Your task to perform on an android device: change the clock display to show seconds Image 0: 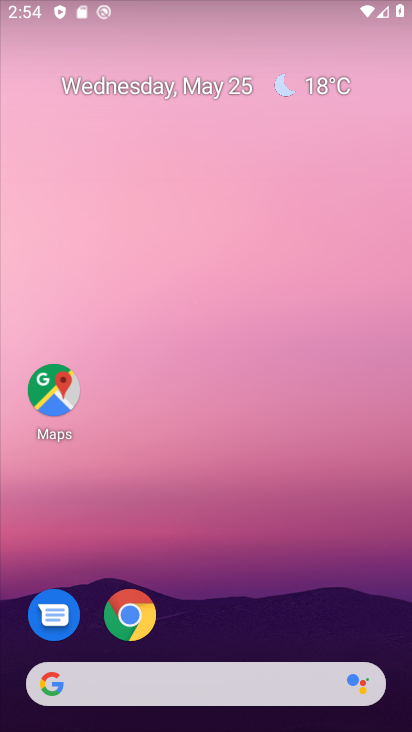
Step 0: click (157, 59)
Your task to perform on an android device: change the clock display to show seconds Image 1: 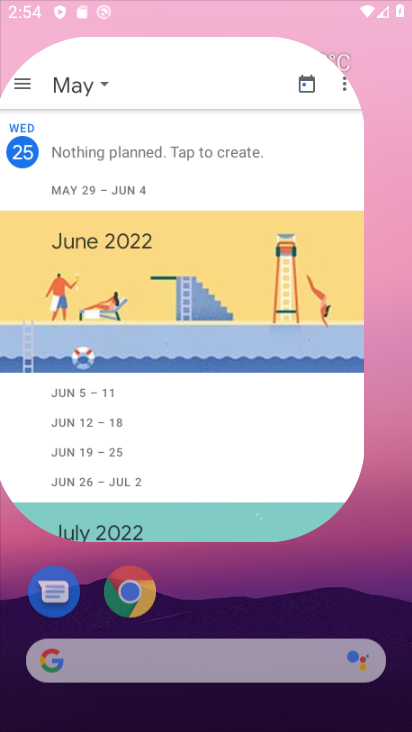
Step 1: drag from (227, 492) to (173, 117)
Your task to perform on an android device: change the clock display to show seconds Image 2: 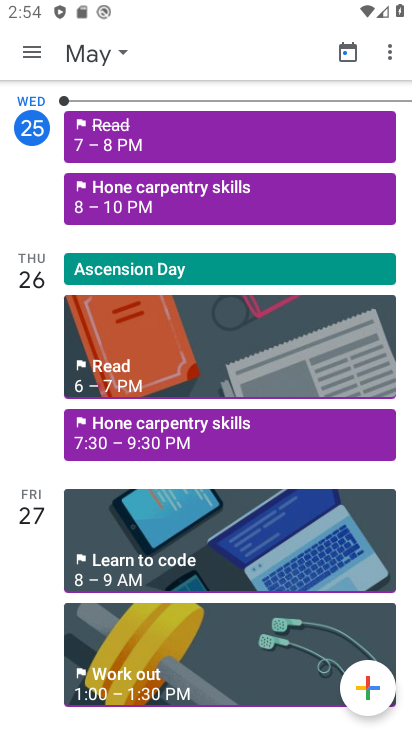
Step 2: press back button
Your task to perform on an android device: change the clock display to show seconds Image 3: 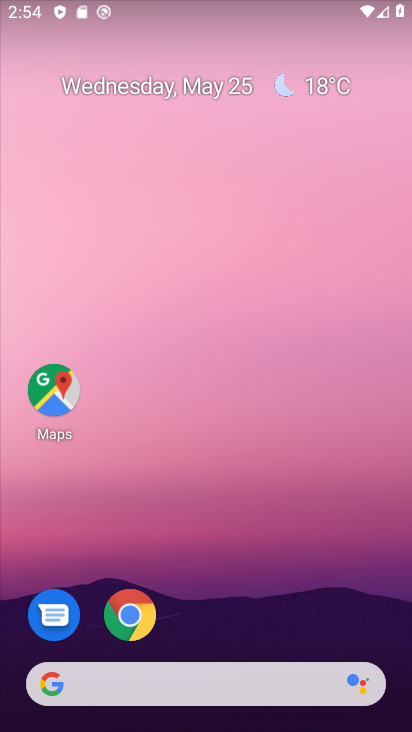
Step 3: drag from (197, 563) to (176, 63)
Your task to perform on an android device: change the clock display to show seconds Image 4: 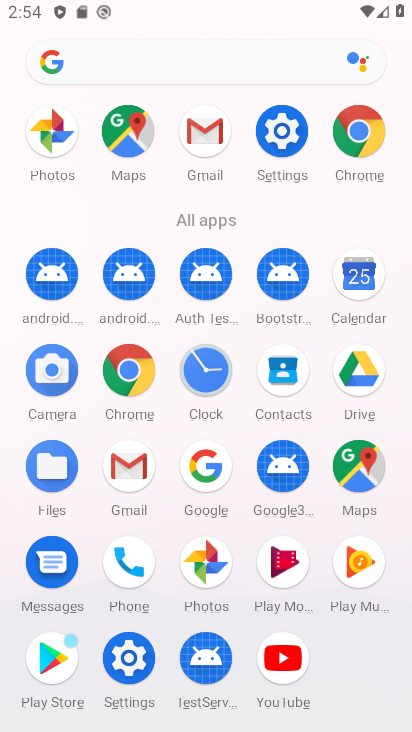
Step 4: click (224, 364)
Your task to perform on an android device: change the clock display to show seconds Image 5: 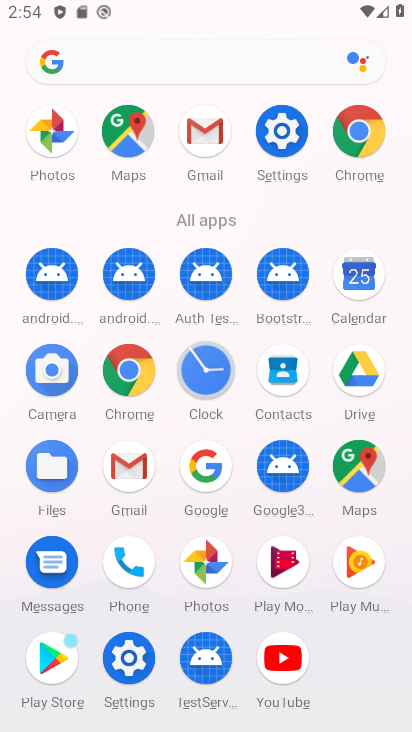
Step 5: click (214, 367)
Your task to perform on an android device: change the clock display to show seconds Image 6: 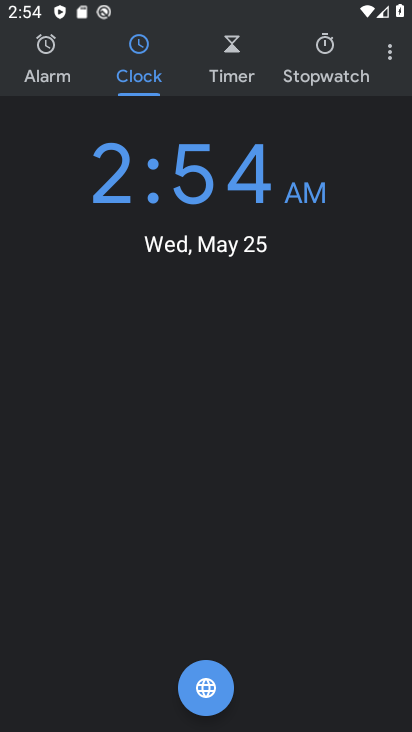
Step 6: click (385, 56)
Your task to perform on an android device: change the clock display to show seconds Image 7: 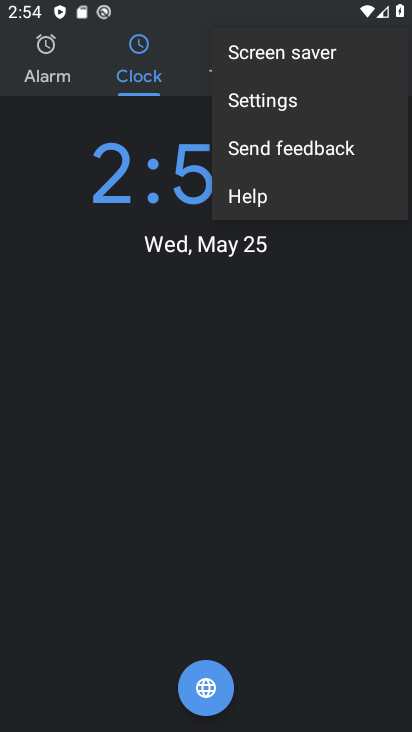
Step 7: click (269, 104)
Your task to perform on an android device: change the clock display to show seconds Image 8: 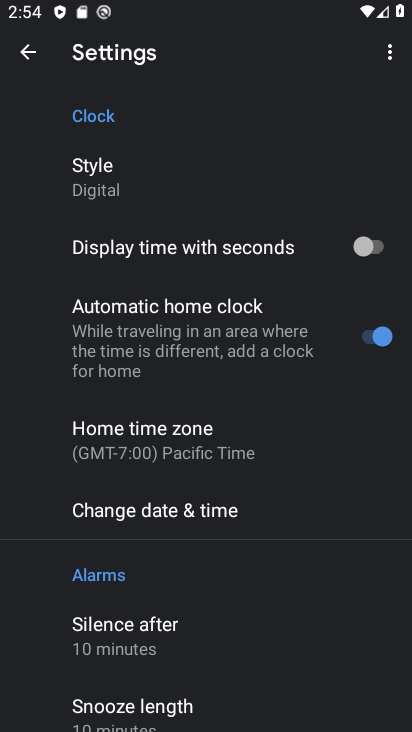
Step 8: click (361, 243)
Your task to perform on an android device: change the clock display to show seconds Image 9: 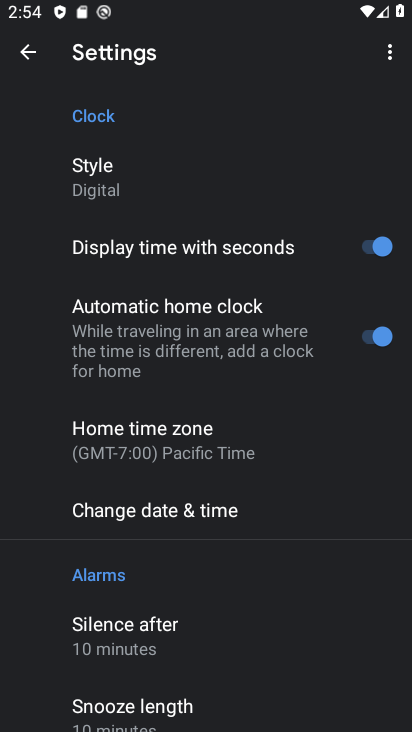
Step 9: task complete